Your task to perform on an android device: star an email in the gmail app Image 0: 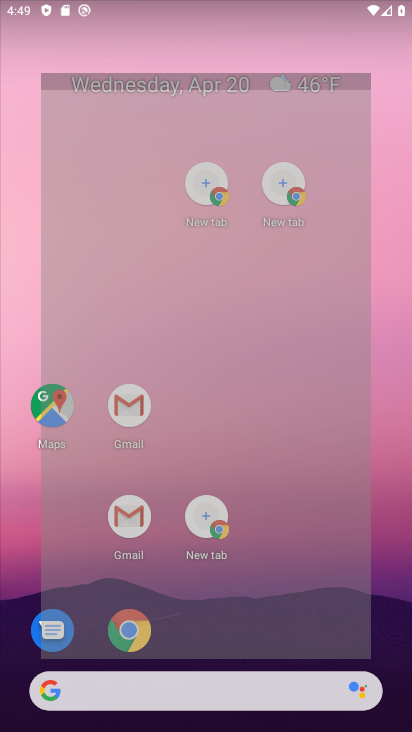
Step 0: click (210, 161)
Your task to perform on an android device: star an email in the gmail app Image 1: 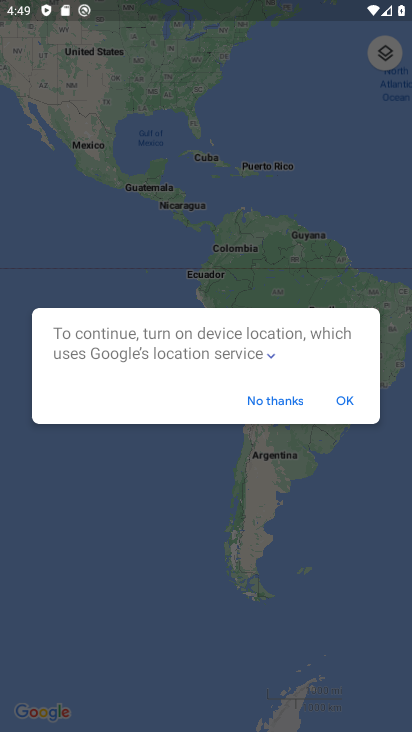
Step 1: click (282, 403)
Your task to perform on an android device: star an email in the gmail app Image 2: 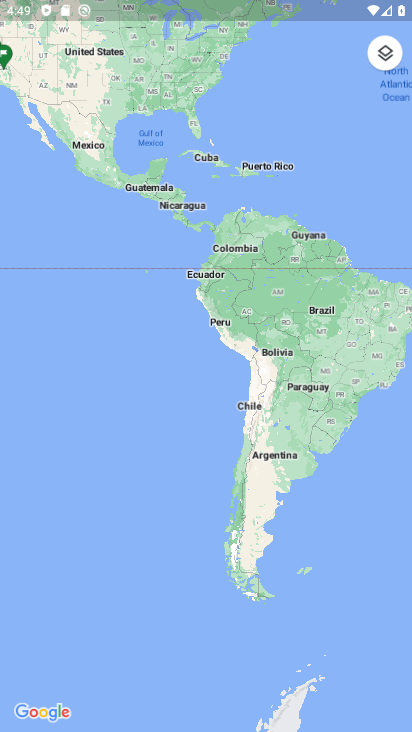
Step 2: press home button
Your task to perform on an android device: star an email in the gmail app Image 3: 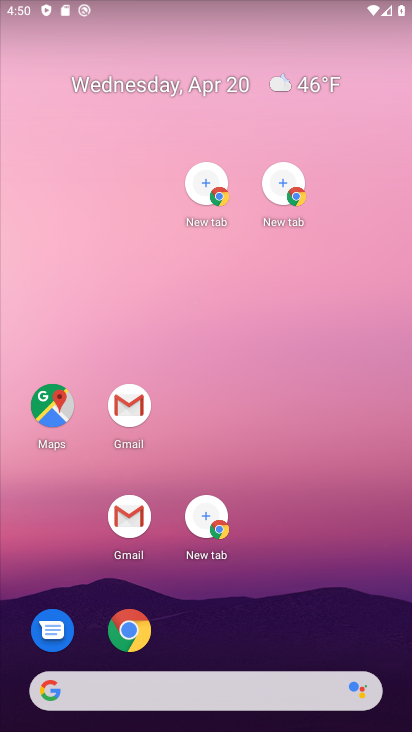
Step 3: drag from (278, 651) to (186, 1)
Your task to perform on an android device: star an email in the gmail app Image 4: 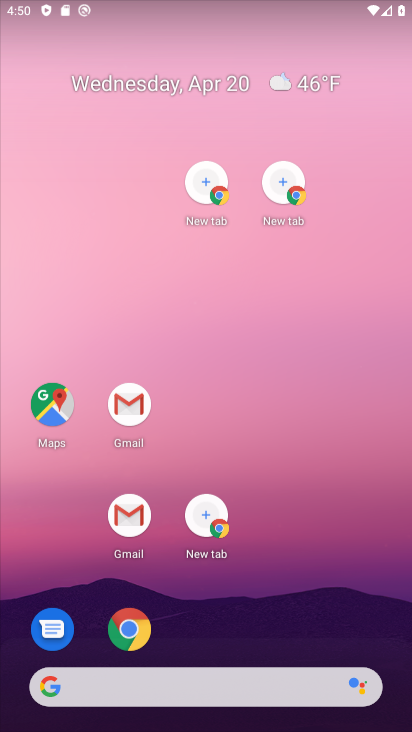
Step 4: drag from (272, 674) to (174, 24)
Your task to perform on an android device: star an email in the gmail app Image 5: 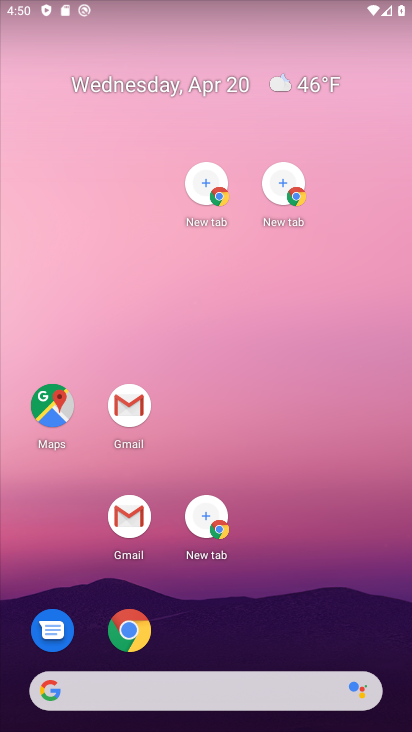
Step 5: click (114, 123)
Your task to perform on an android device: star an email in the gmail app Image 6: 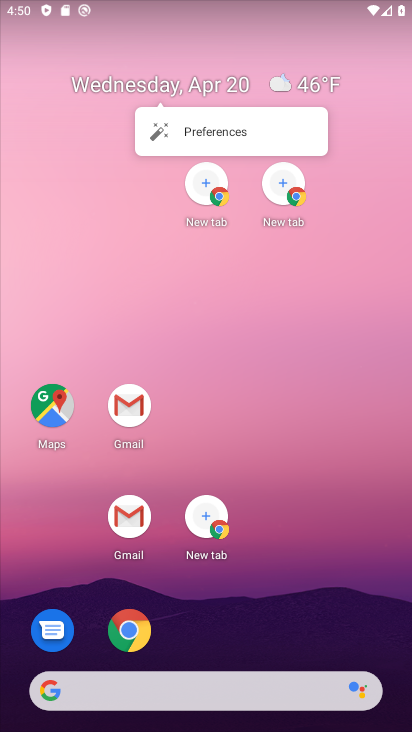
Step 6: click (126, 396)
Your task to perform on an android device: star an email in the gmail app Image 7: 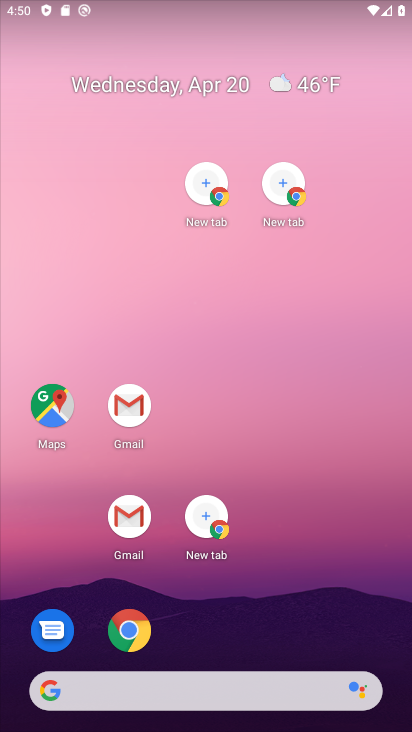
Step 7: click (126, 396)
Your task to perform on an android device: star an email in the gmail app Image 8: 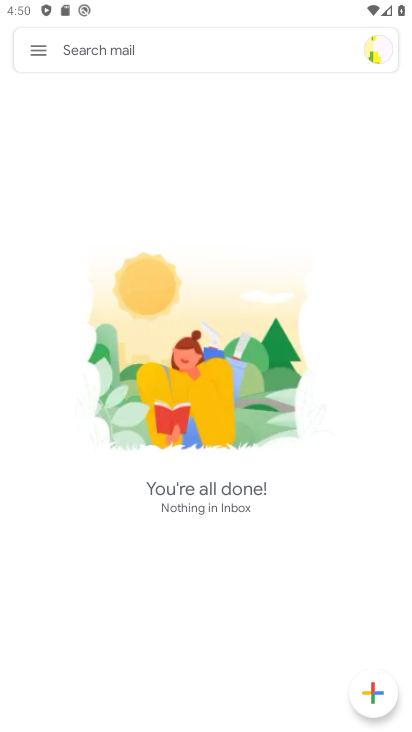
Step 8: click (30, 48)
Your task to perform on an android device: star an email in the gmail app Image 9: 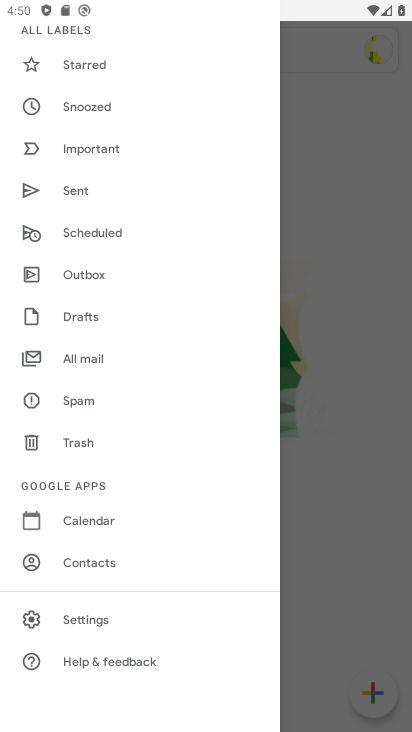
Step 9: click (80, 358)
Your task to perform on an android device: star an email in the gmail app Image 10: 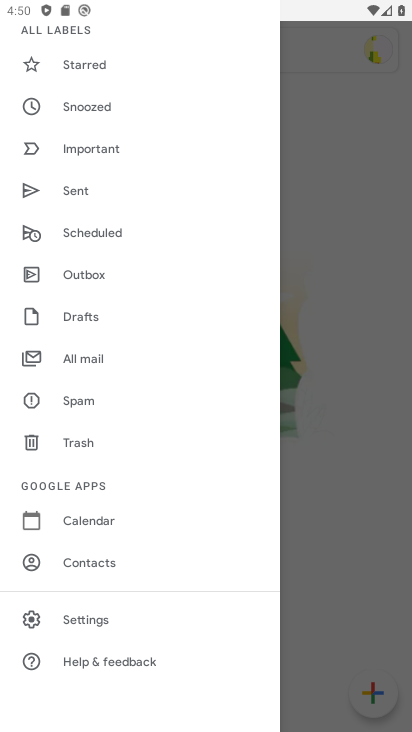
Step 10: click (80, 358)
Your task to perform on an android device: star an email in the gmail app Image 11: 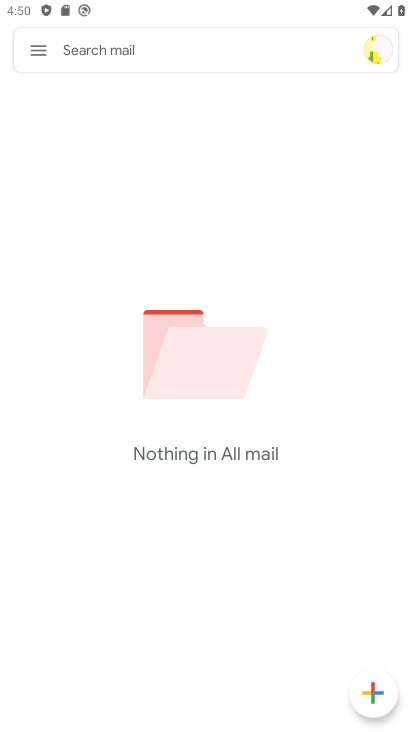
Step 11: task complete